Your task to perform on an android device: Open calendar and show me the fourth week of next month Image 0: 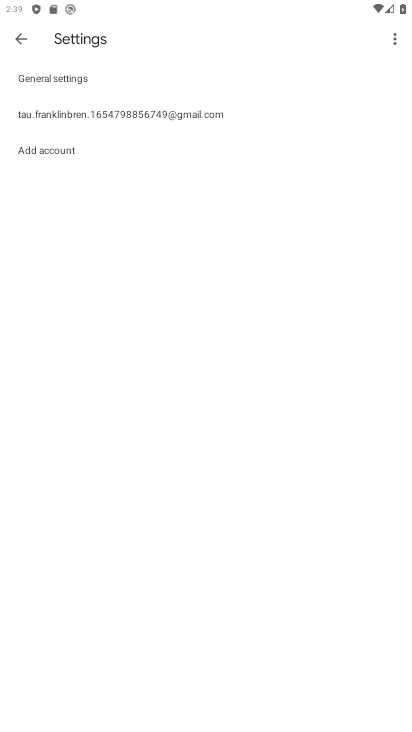
Step 0: press home button
Your task to perform on an android device: Open calendar and show me the fourth week of next month Image 1: 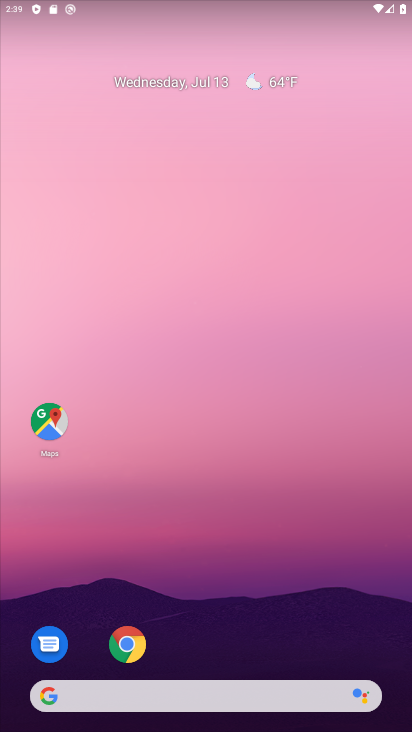
Step 1: drag from (207, 644) to (286, 68)
Your task to perform on an android device: Open calendar and show me the fourth week of next month Image 2: 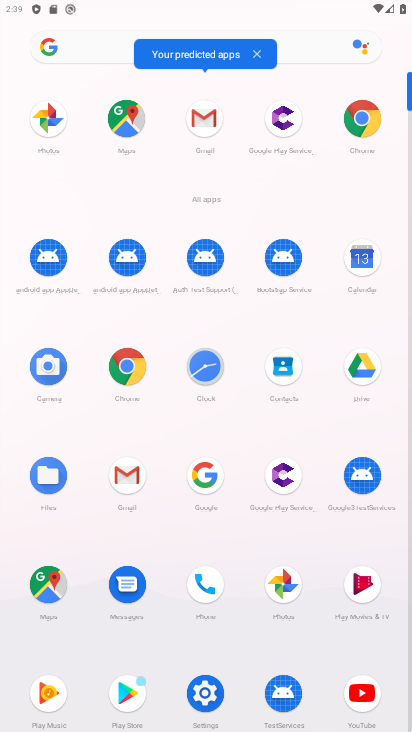
Step 2: click (364, 261)
Your task to perform on an android device: Open calendar and show me the fourth week of next month Image 3: 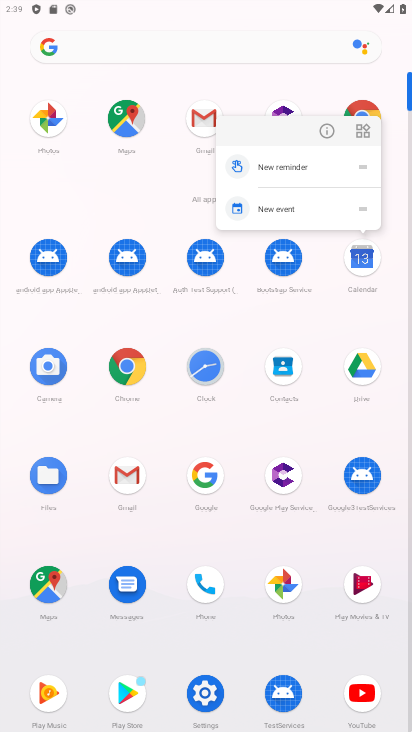
Step 3: click (360, 257)
Your task to perform on an android device: Open calendar and show me the fourth week of next month Image 4: 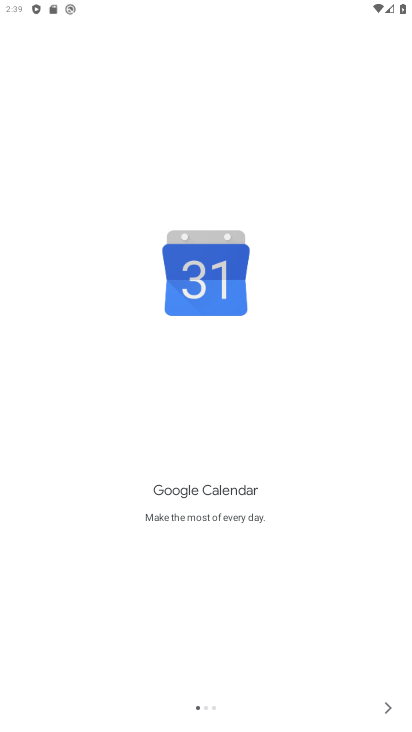
Step 4: click (389, 703)
Your task to perform on an android device: Open calendar and show me the fourth week of next month Image 5: 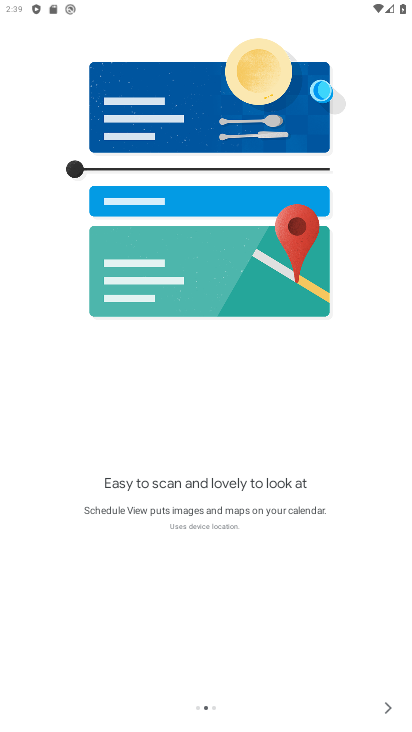
Step 5: click (389, 711)
Your task to perform on an android device: Open calendar and show me the fourth week of next month Image 6: 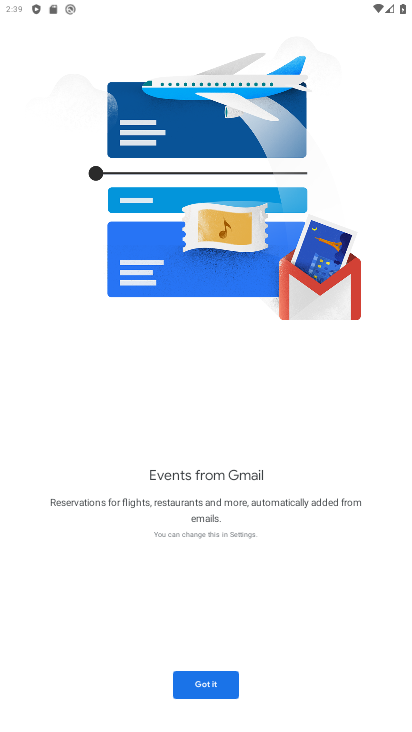
Step 6: click (196, 677)
Your task to perform on an android device: Open calendar and show me the fourth week of next month Image 7: 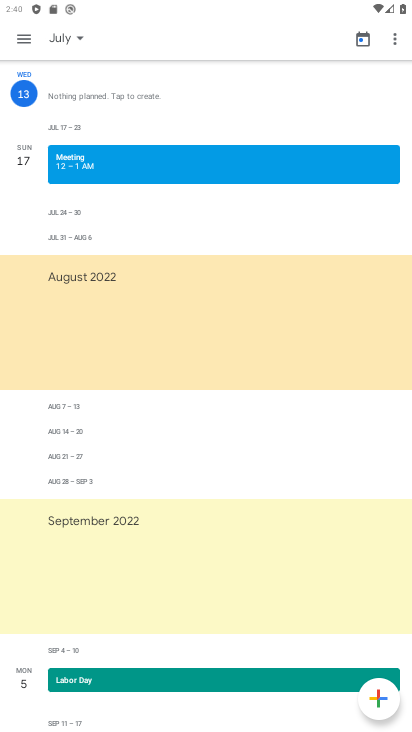
Step 7: click (74, 32)
Your task to perform on an android device: Open calendar and show me the fourth week of next month Image 8: 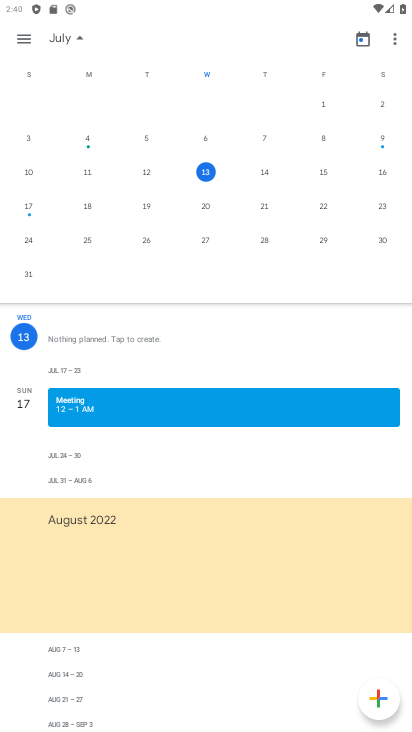
Step 8: drag from (384, 212) to (3, 401)
Your task to perform on an android device: Open calendar and show me the fourth week of next month Image 9: 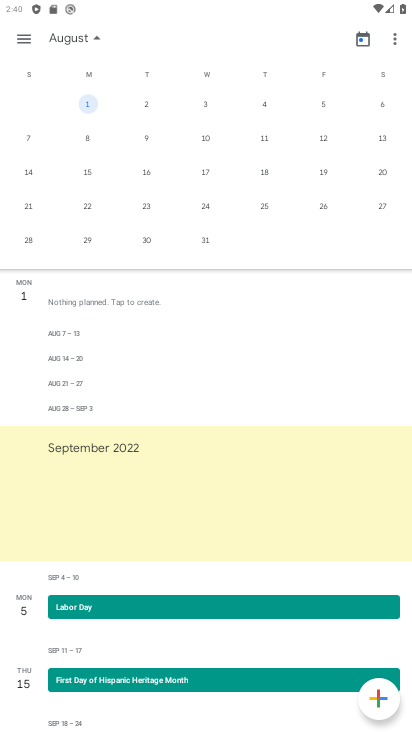
Step 9: click (30, 207)
Your task to perform on an android device: Open calendar and show me the fourth week of next month Image 10: 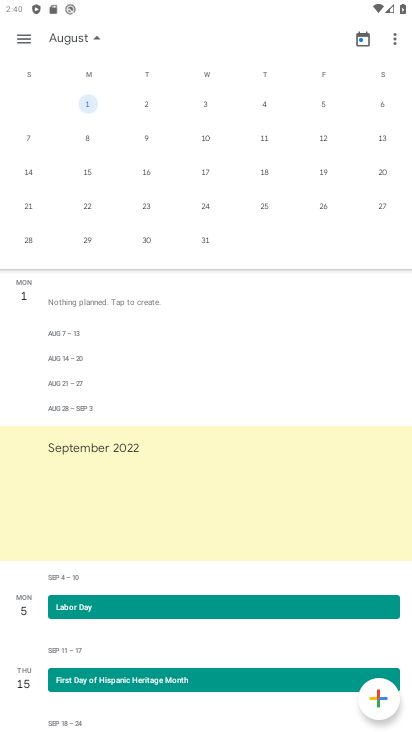
Step 10: click (28, 210)
Your task to perform on an android device: Open calendar and show me the fourth week of next month Image 11: 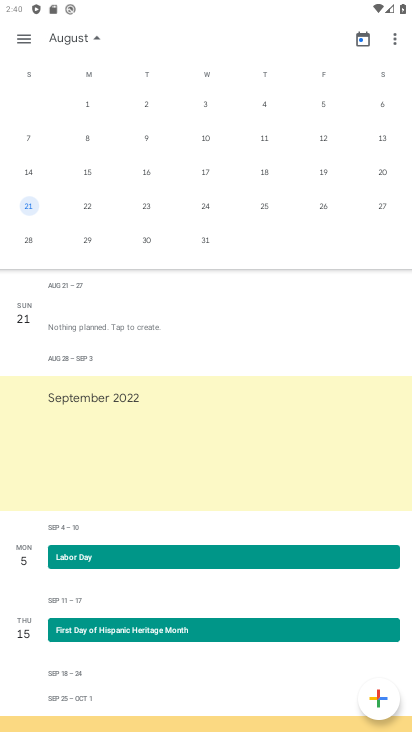
Step 11: click (27, 44)
Your task to perform on an android device: Open calendar and show me the fourth week of next month Image 12: 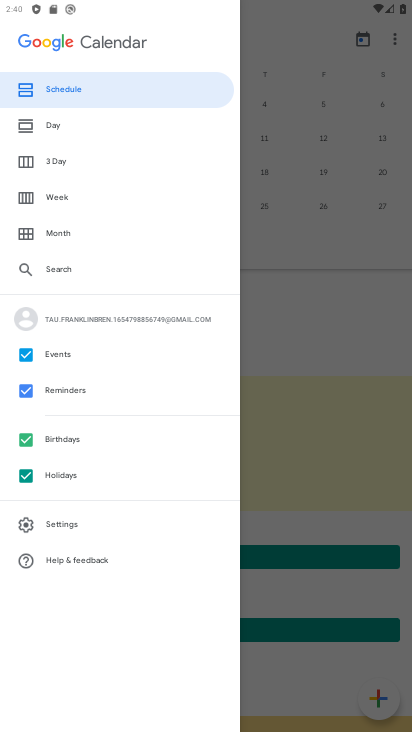
Step 12: click (47, 192)
Your task to perform on an android device: Open calendar and show me the fourth week of next month Image 13: 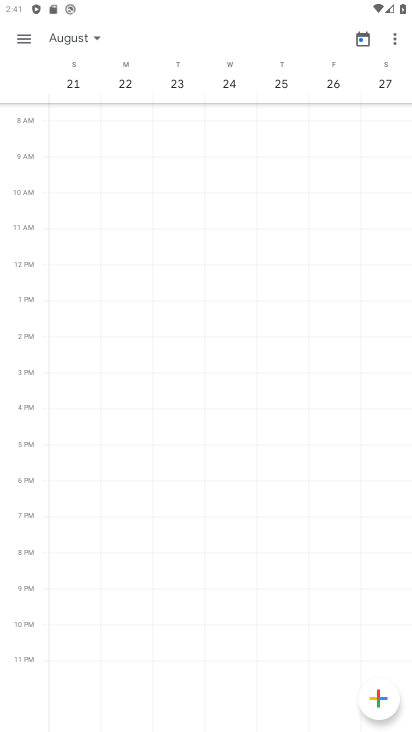
Step 13: task complete